Your task to perform on an android device: Empty the shopping cart on newegg. Search for "logitech g pro" on newegg, select the first entry, add it to the cart, then select checkout. Image 0: 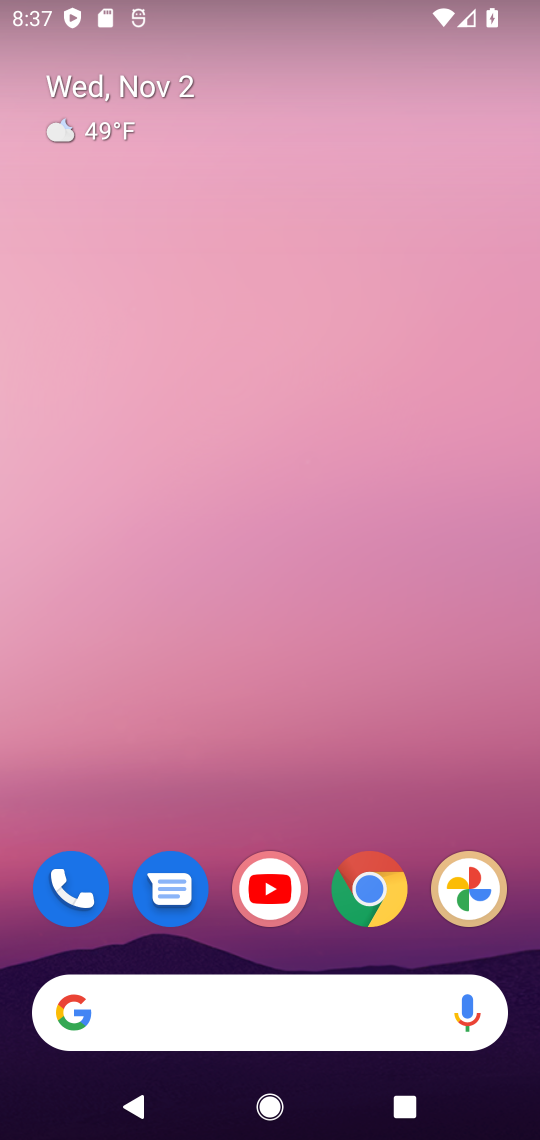
Step 0: press home button
Your task to perform on an android device: Empty the shopping cart on newegg. Search for "logitech g pro" on newegg, select the first entry, add it to the cart, then select checkout. Image 1: 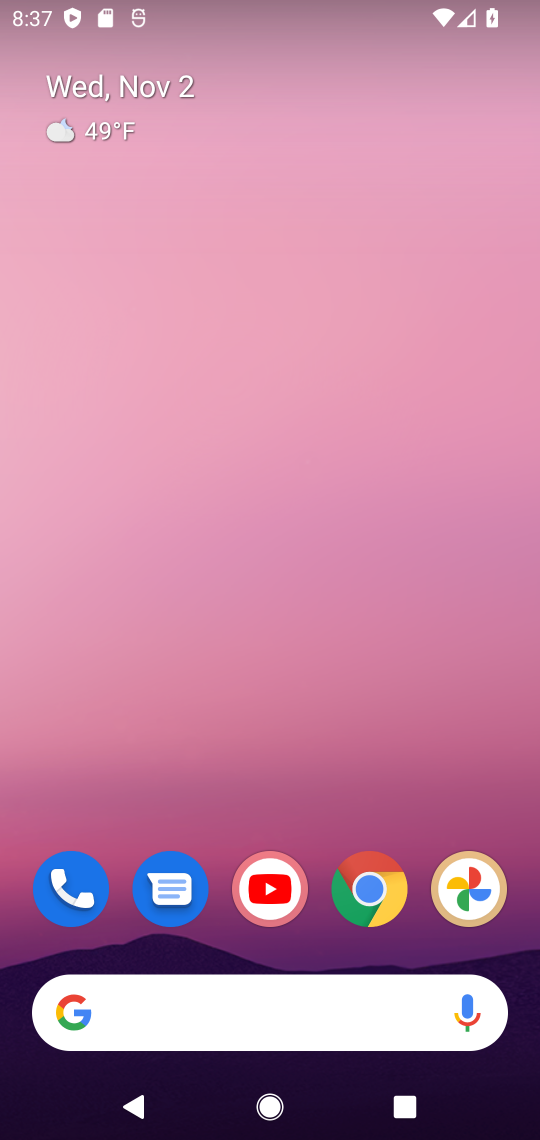
Step 1: drag from (318, 835) to (313, 49)
Your task to perform on an android device: Empty the shopping cart on newegg. Search for "logitech g pro" on newegg, select the first entry, add it to the cart, then select checkout. Image 2: 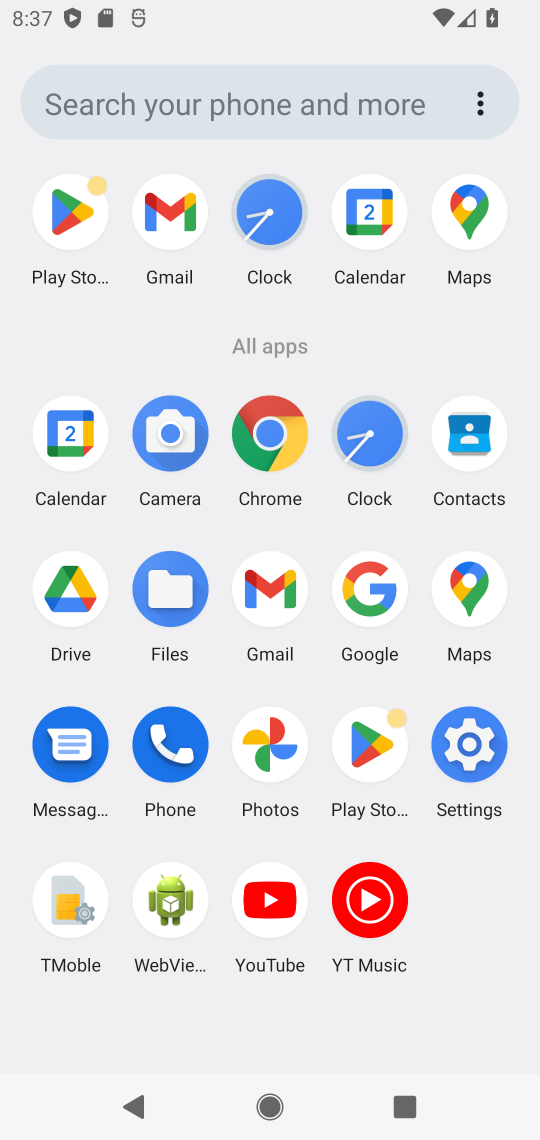
Step 2: click (269, 422)
Your task to perform on an android device: Empty the shopping cart on newegg. Search for "logitech g pro" on newegg, select the first entry, add it to the cart, then select checkout. Image 3: 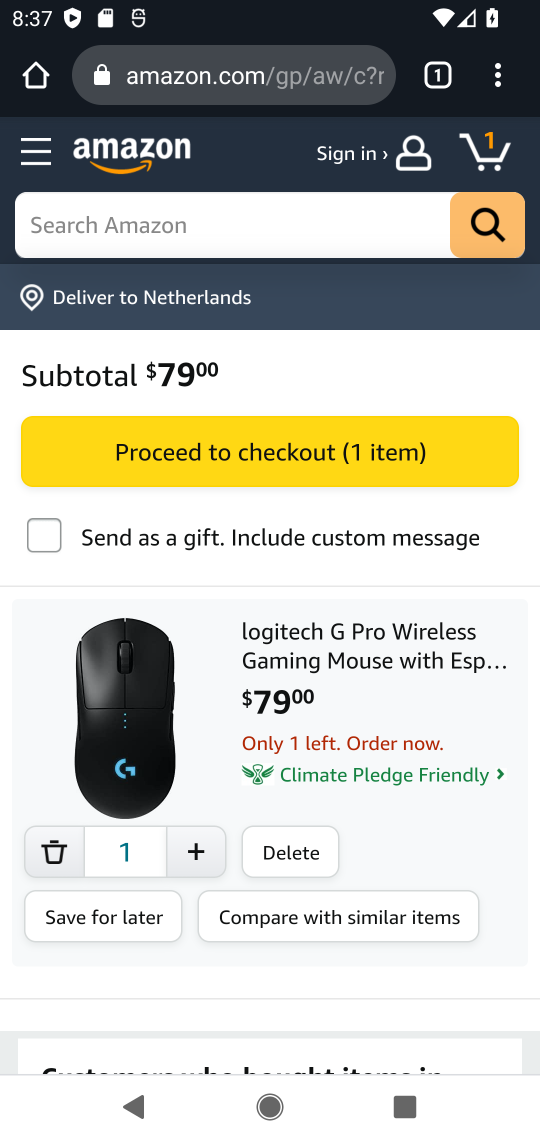
Step 3: click (97, 225)
Your task to perform on an android device: Empty the shopping cart on newegg. Search for "logitech g pro" on newegg, select the first entry, add it to the cart, then select checkout. Image 4: 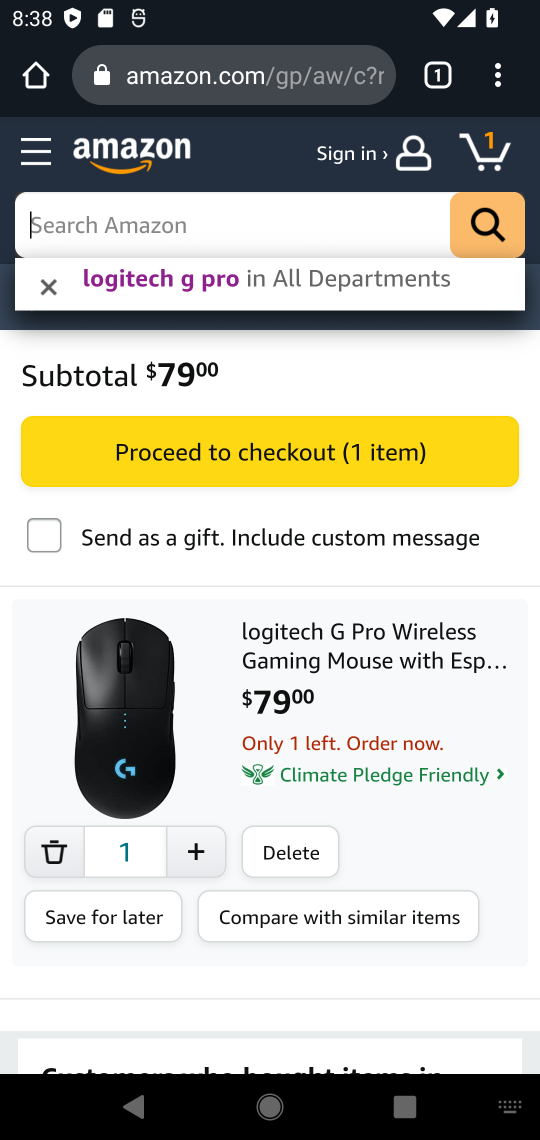
Step 4: click (183, 274)
Your task to perform on an android device: Empty the shopping cart on newegg. Search for "logitech g pro" on newegg, select the first entry, add it to the cart, then select checkout. Image 5: 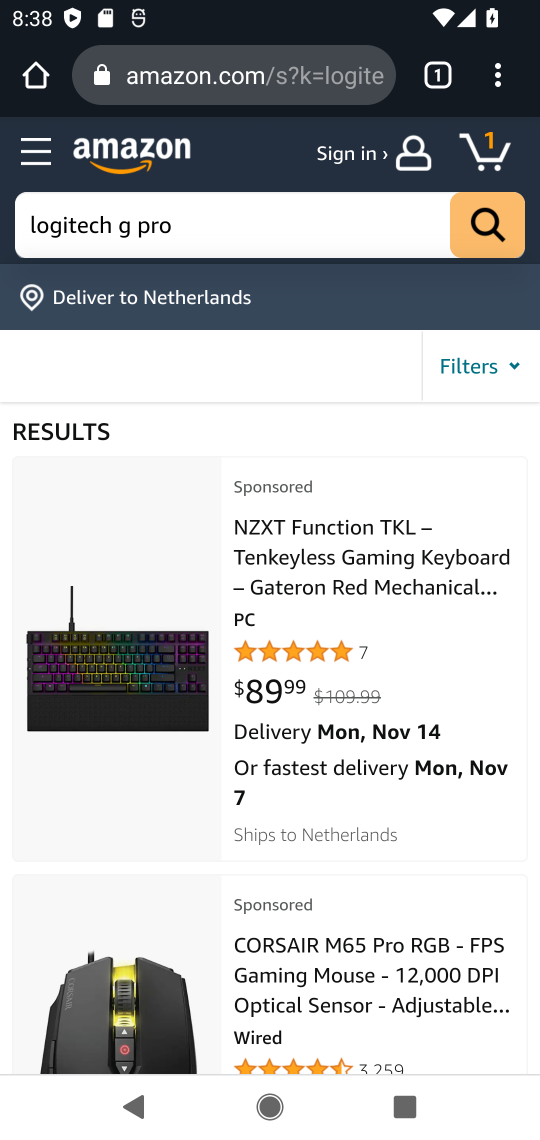
Step 5: click (188, 58)
Your task to perform on an android device: Empty the shopping cart on newegg. Search for "logitech g pro" on newegg, select the first entry, add it to the cart, then select checkout. Image 6: 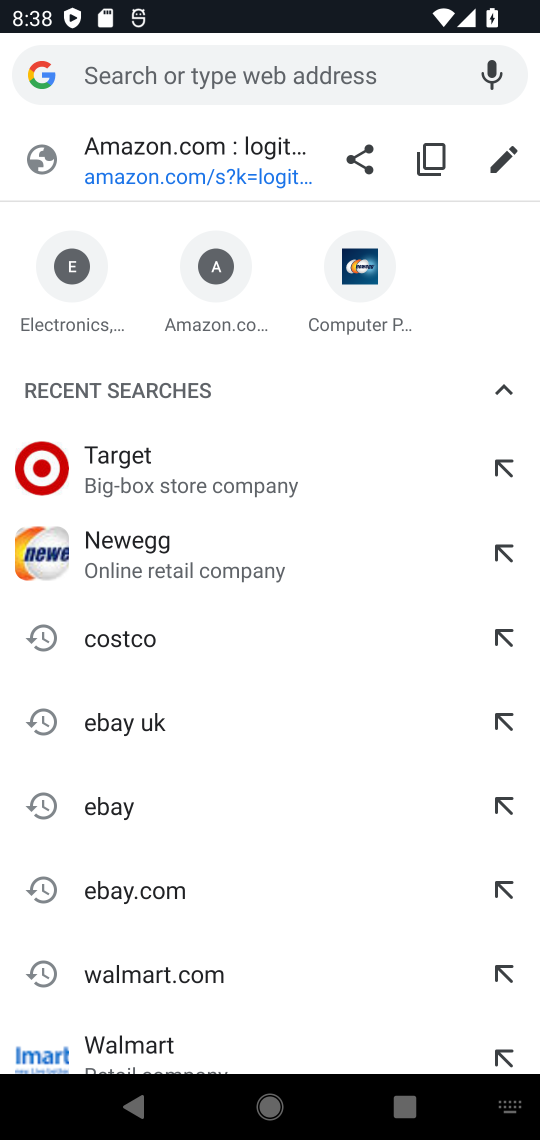
Step 6: type "newegg"
Your task to perform on an android device: Empty the shopping cart on newegg. Search for "logitech g pro" on newegg, select the first entry, add it to the cart, then select checkout. Image 7: 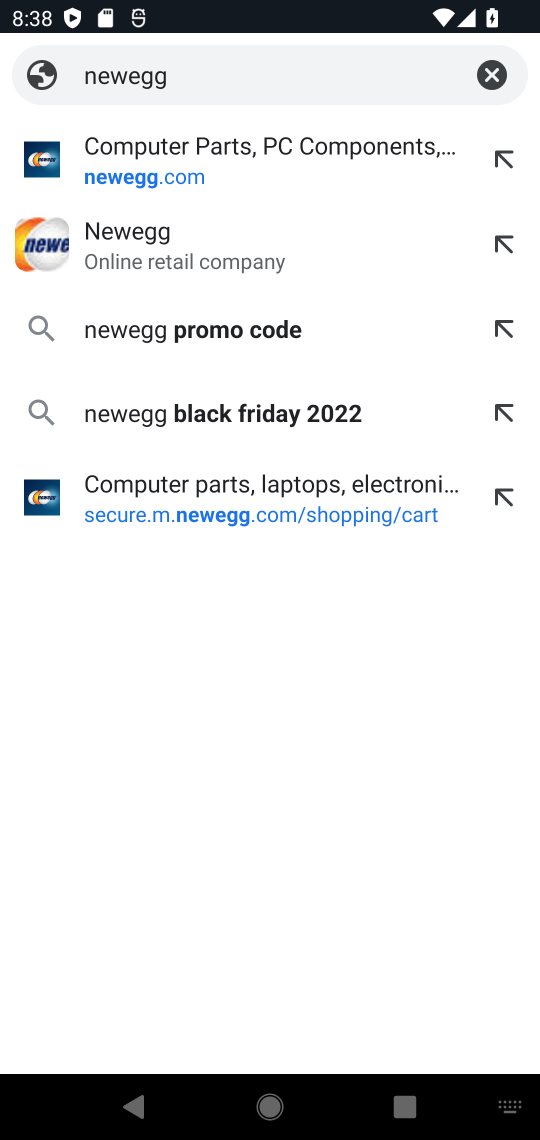
Step 7: click (165, 230)
Your task to perform on an android device: Empty the shopping cart on newegg. Search for "logitech g pro" on newegg, select the first entry, add it to the cart, then select checkout. Image 8: 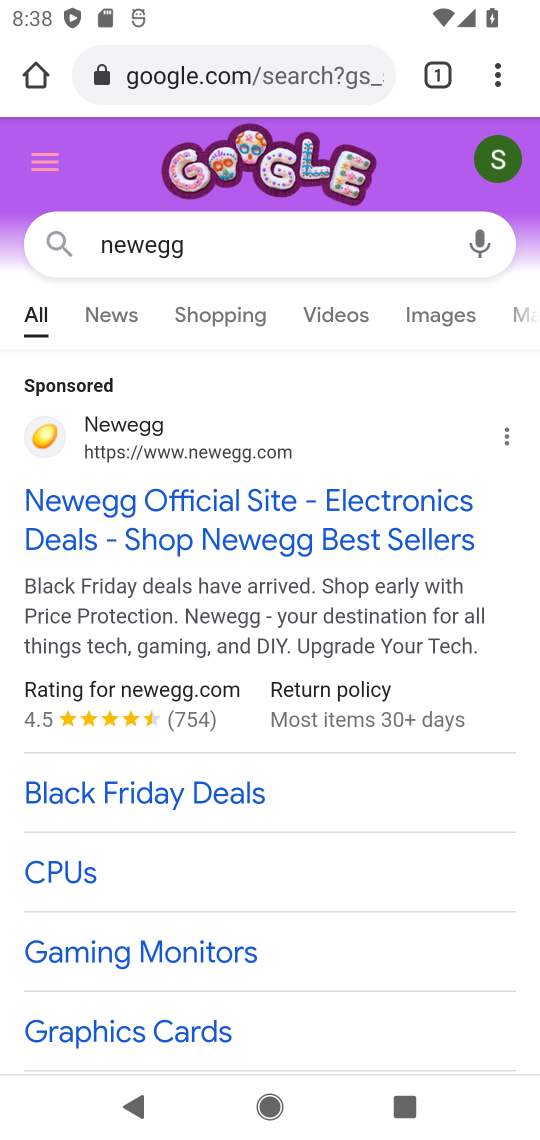
Step 8: click (206, 517)
Your task to perform on an android device: Empty the shopping cart on newegg. Search for "logitech g pro" on newegg, select the first entry, add it to the cart, then select checkout. Image 9: 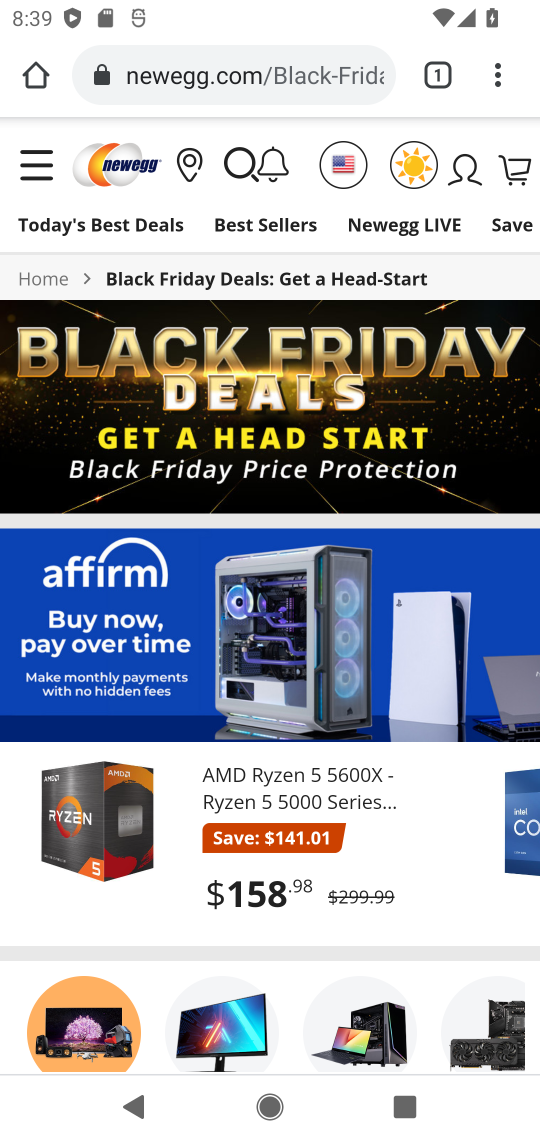
Step 9: click (238, 163)
Your task to perform on an android device: Empty the shopping cart on newegg. Search for "logitech g pro" on newegg, select the first entry, add it to the cart, then select checkout. Image 10: 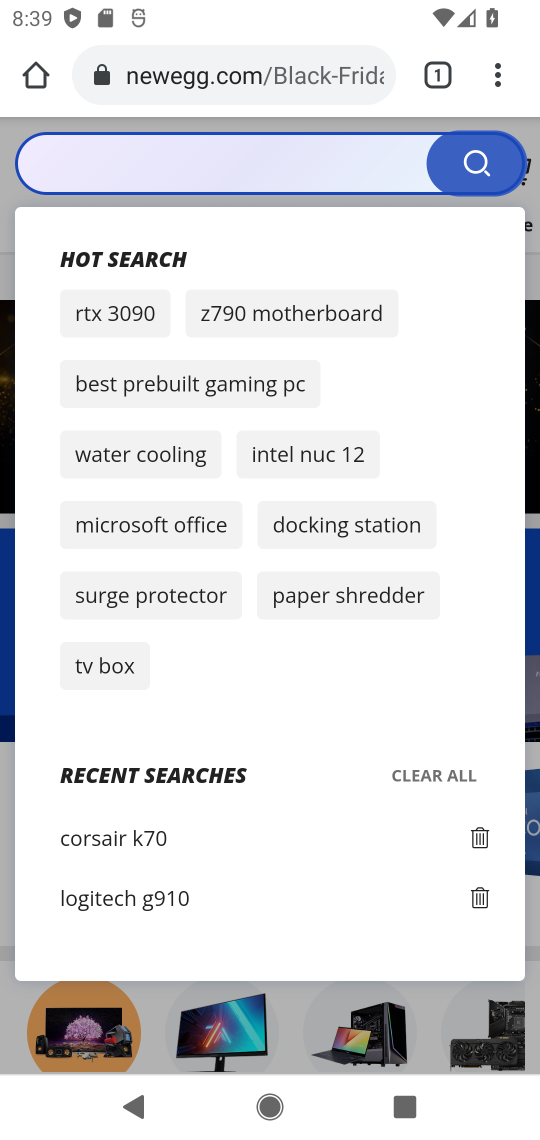
Step 10: type "logitech g pro"
Your task to perform on an android device: Empty the shopping cart on newegg. Search for "logitech g pro" on newegg, select the first entry, add it to the cart, then select checkout. Image 11: 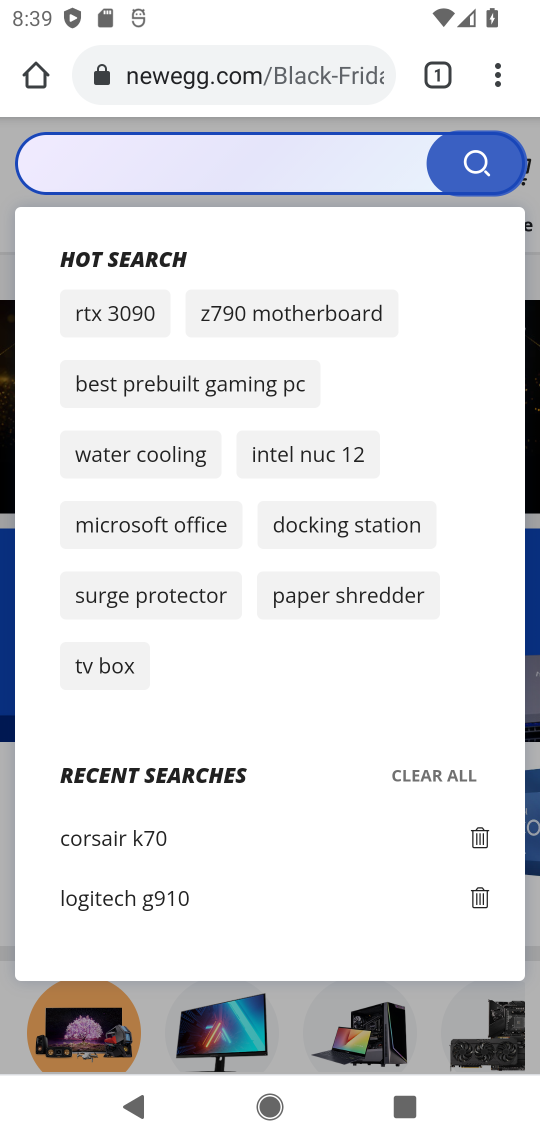
Step 11: click (130, 152)
Your task to perform on an android device: Empty the shopping cart on newegg. Search for "logitech g pro" on newegg, select the first entry, add it to the cart, then select checkout. Image 12: 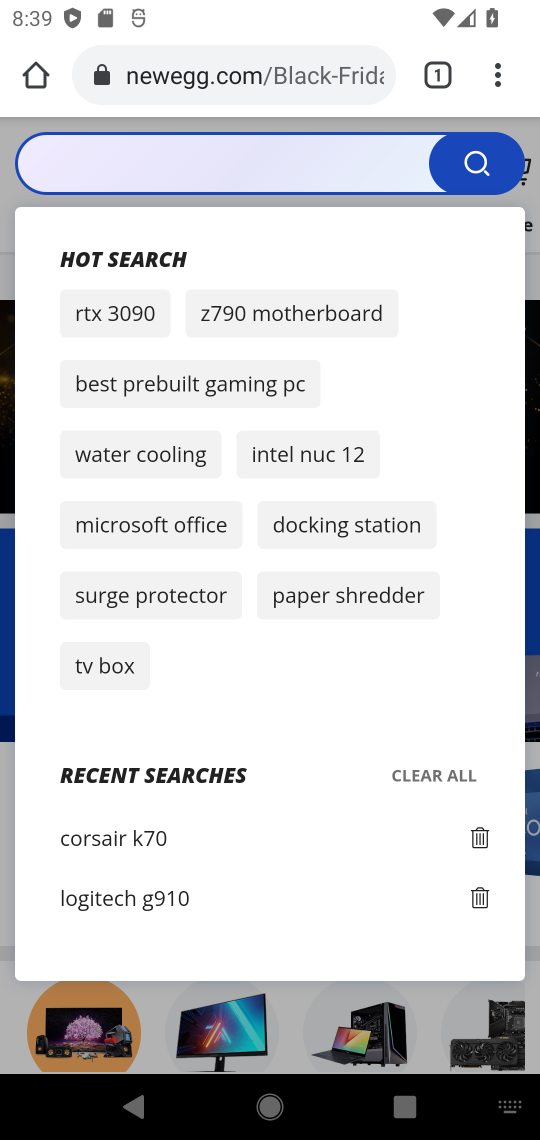
Step 12: click (120, 161)
Your task to perform on an android device: Empty the shopping cart on newegg. Search for "logitech g pro" on newegg, select the first entry, add it to the cart, then select checkout. Image 13: 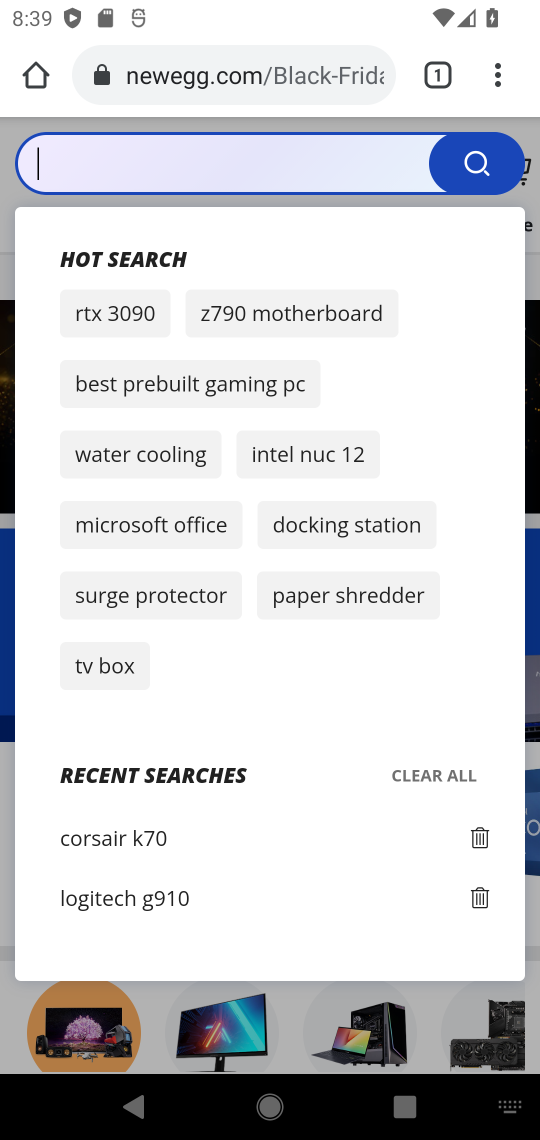
Step 13: click (107, 157)
Your task to perform on an android device: Empty the shopping cart on newegg. Search for "logitech g pro" on newegg, select the first entry, add it to the cart, then select checkout. Image 14: 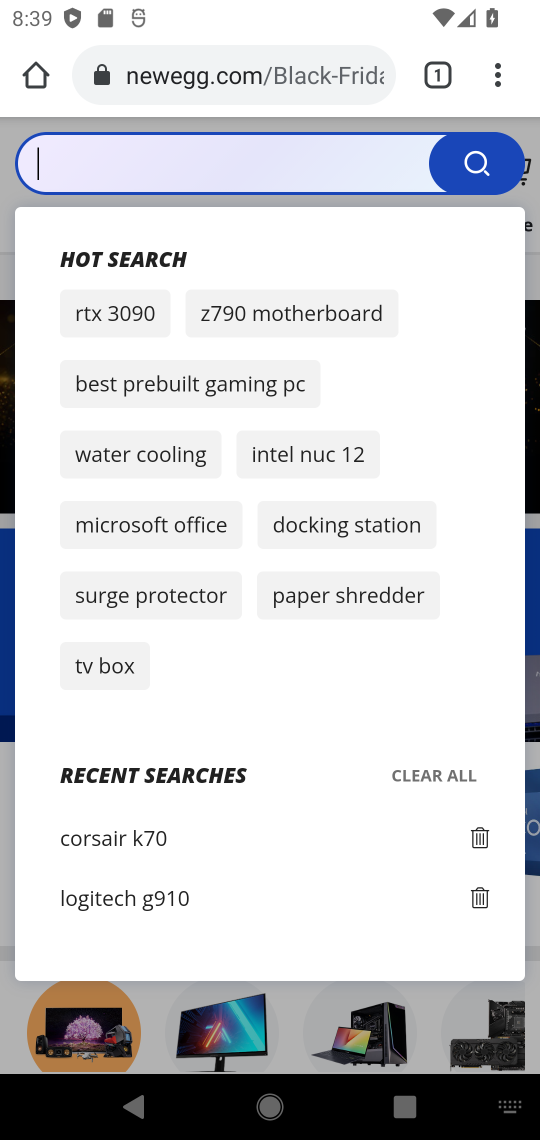
Step 14: click (107, 157)
Your task to perform on an android device: Empty the shopping cart on newegg. Search for "logitech g pro" on newegg, select the first entry, add it to the cart, then select checkout. Image 15: 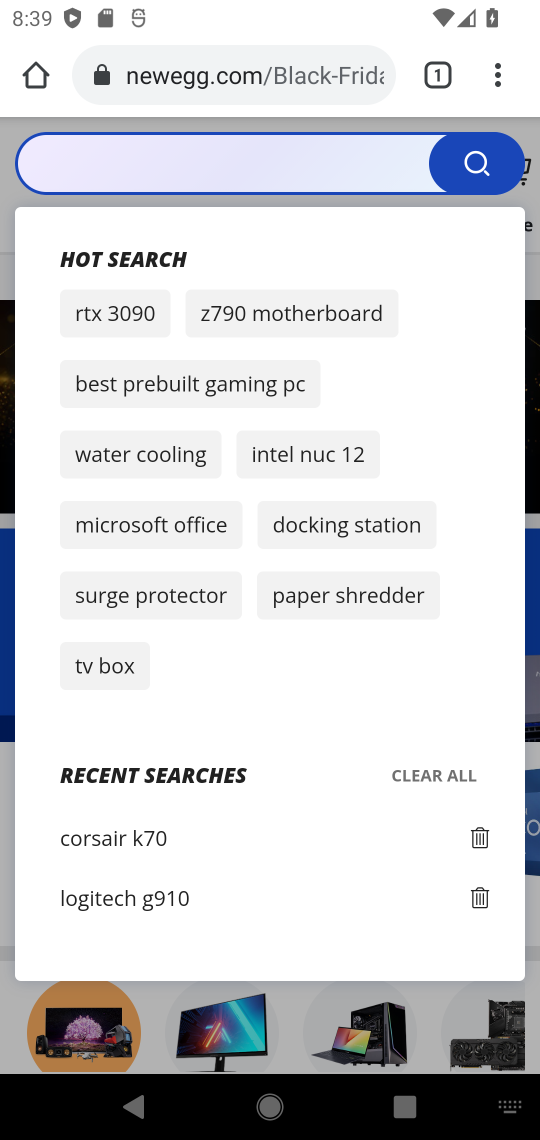
Step 15: click (195, 171)
Your task to perform on an android device: Empty the shopping cart on newegg. Search for "logitech g pro" on newegg, select the first entry, add it to the cart, then select checkout. Image 16: 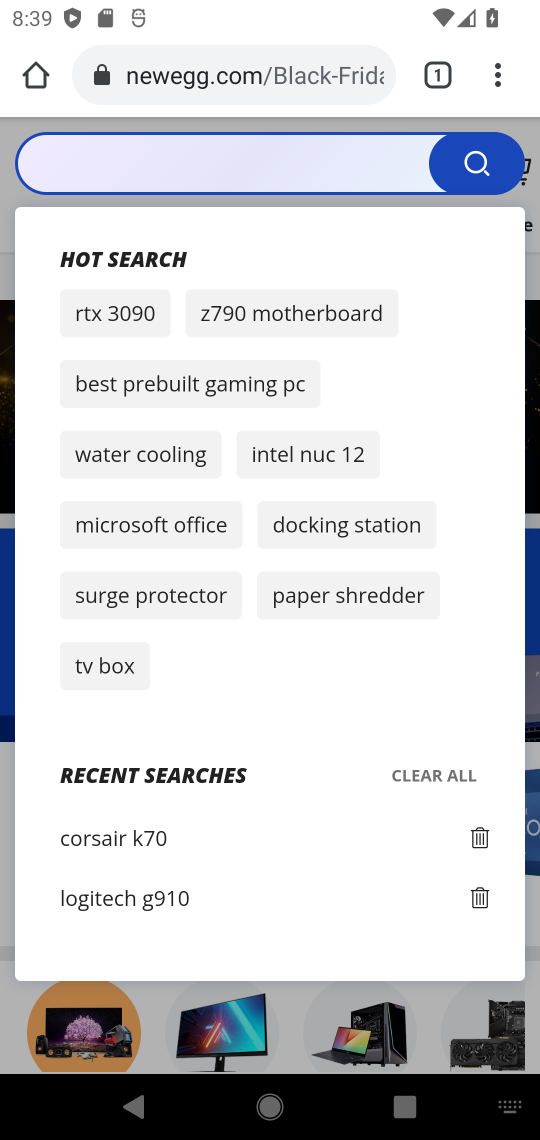
Step 16: type "logitech g pro"
Your task to perform on an android device: Empty the shopping cart on newegg. Search for "logitech g pro" on newegg, select the first entry, add it to the cart, then select checkout. Image 17: 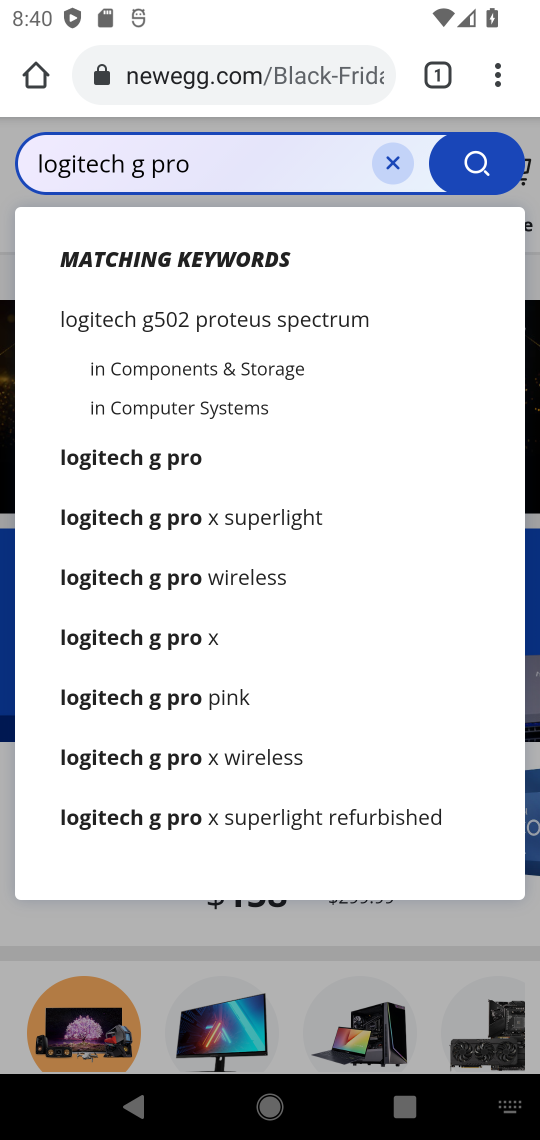
Step 17: click (149, 463)
Your task to perform on an android device: Empty the shopping cart on newegg. Search for "logitech g pro" on newegg, select the first entry, add it to the cart, then select checkout. Image 18: 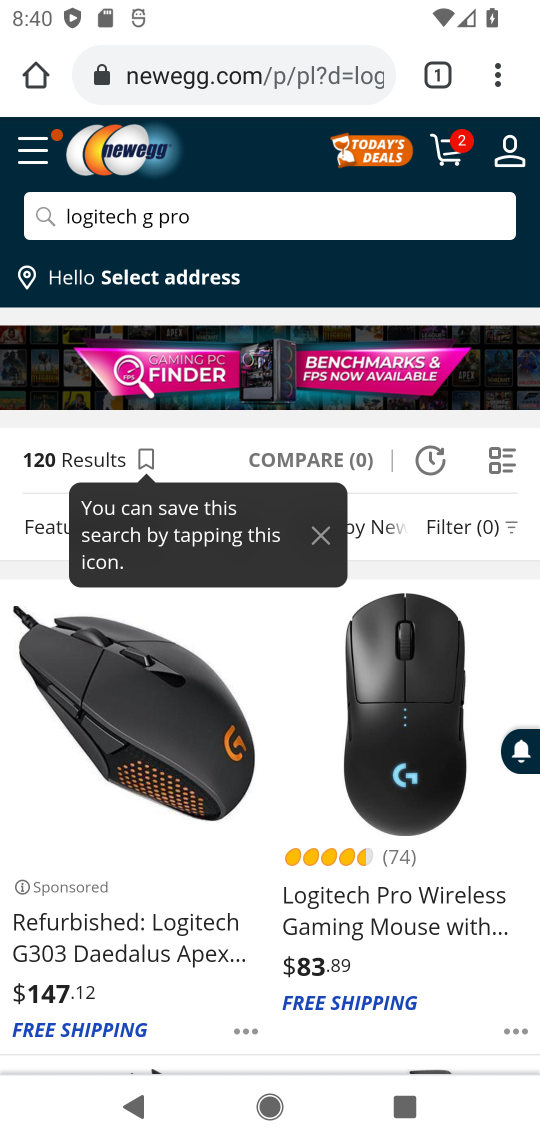
Step 18: click (405, 875)
Your task to perform on an android device: Empty the shopping cart on newegg. Search for "logitech g pro" on newegg, select the first entry, add it to the cart, then select checkout. Image 19: 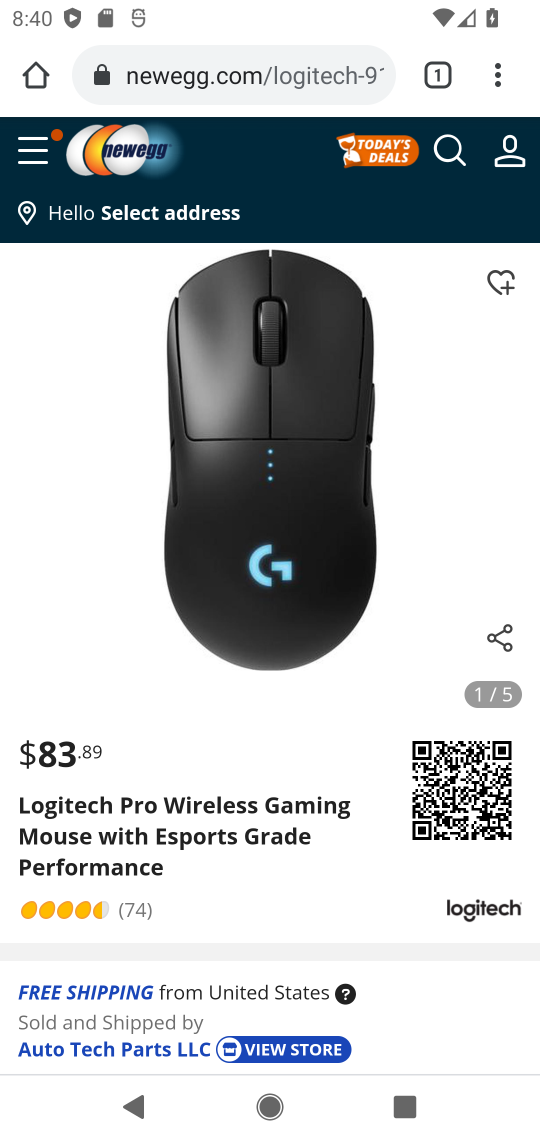
Step 19: drag from (285, 938) to (286, 327)
Your task to perform on an android device: Empty the shopping cart on newegg. Search for "logitech g pro" on newegg, select the first entry, add it to the cart, then select checkout. Image 20: 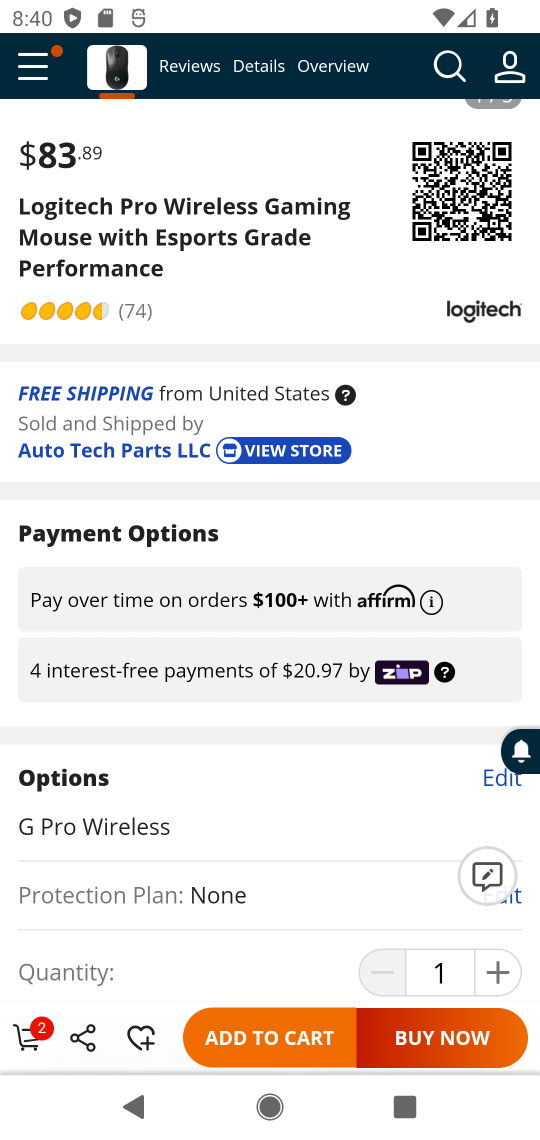
Step 20: click (258, 1032)
Your task to perform on an android device: Empty the shopping cart on newegg. Search for "logitech g pro" on newegg, select the first entry, add it to the cart, then select checkout. Image 21: 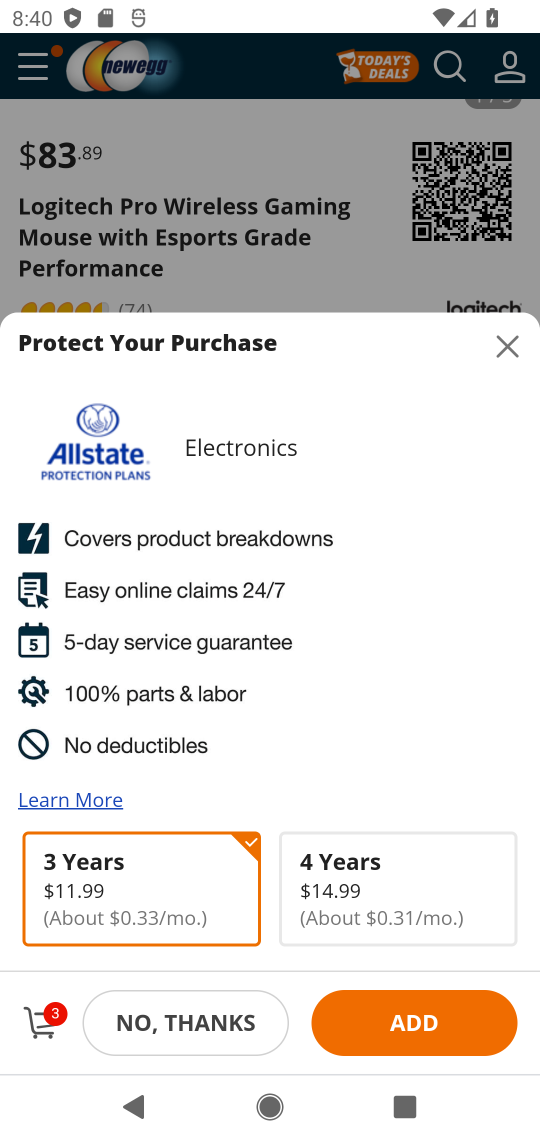
Step 21: click (35, 1005)
Your task to perform on an android device: Empty the shopping cart on newegg. Search for "logitech g pro" on newegg, select the first entry, add it to the cart, then select checkout. Image 22: 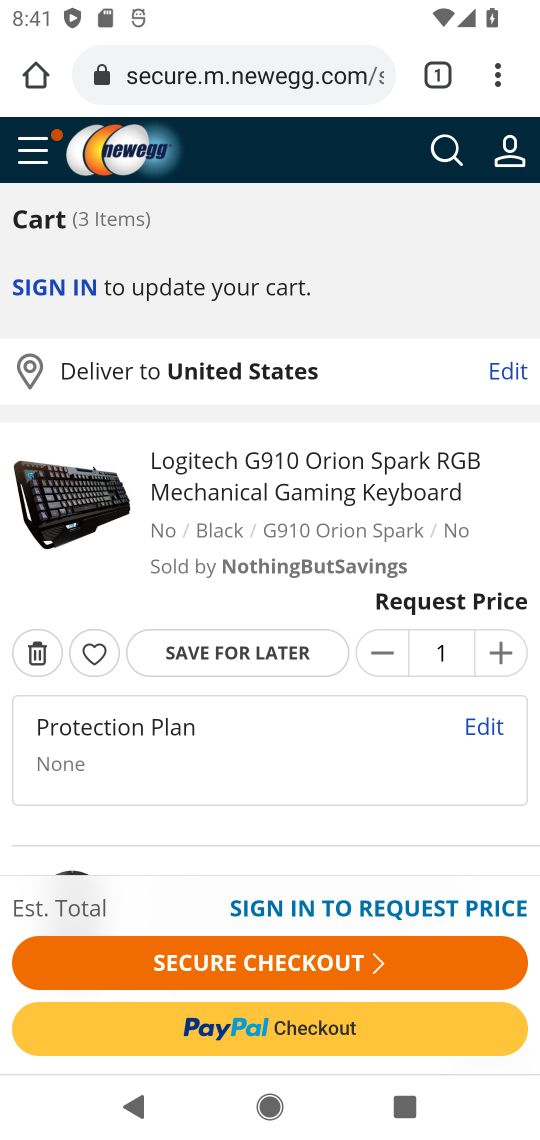
Step 22: click (281, 962)
Your task to perform on an android device: Empty the shopping cart on newegg. Search for "logitech g pro" on newegg, select the first entry, add it to the cart, then select checkout. Image 23: 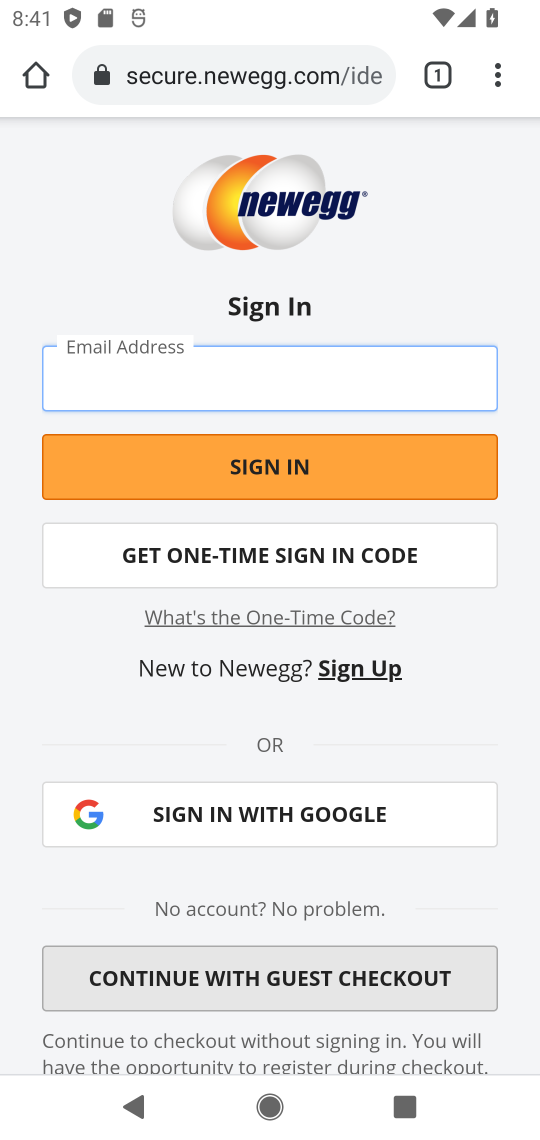
Step 23: task complete